Your task to perform on an android device: Do I have any events this weekend? Image 0: 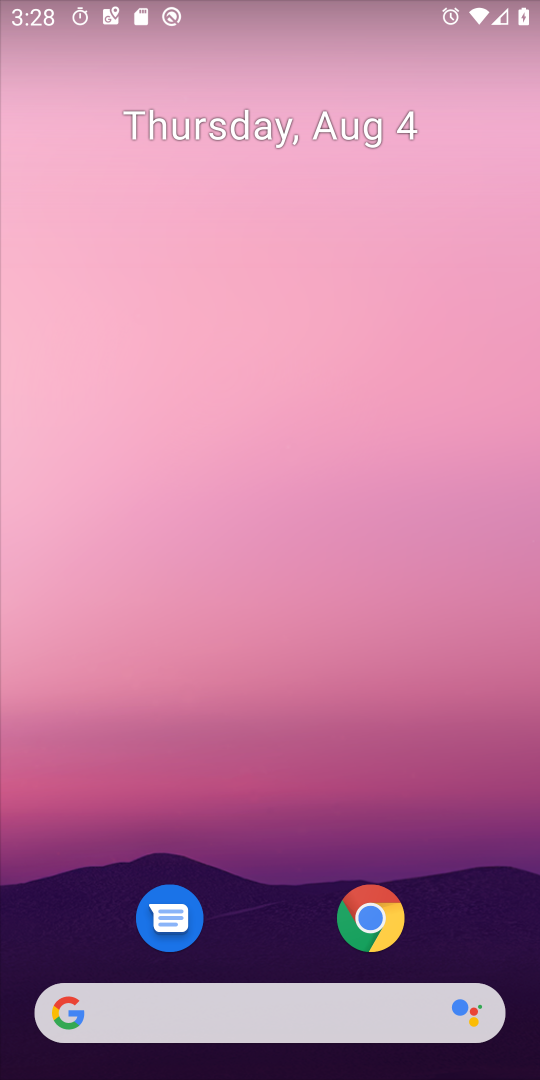
Step 0: drag from (242, 693) to (176, 140)
Your task to perform on an android device: Do I have any events this weekend? Image 1: 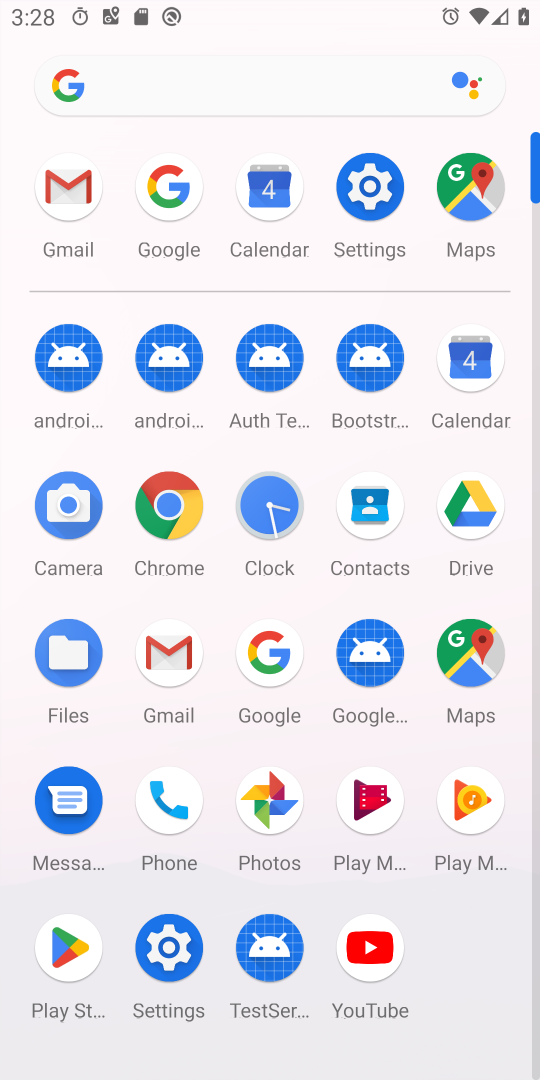
Step 1: click (472, 371)
Your task to perform on an android device: Do I have any events this weekend? Image 2: 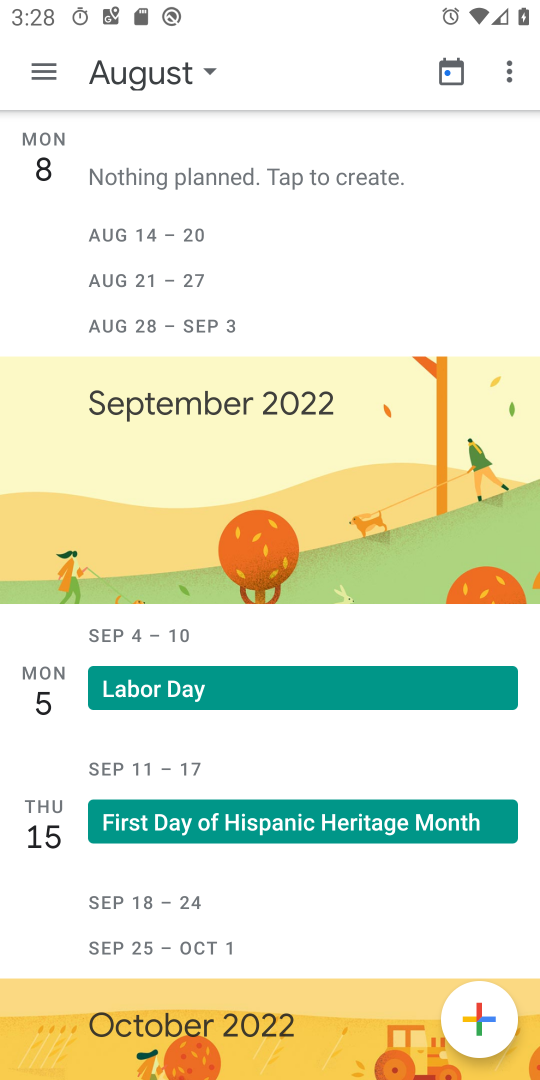
Step 2: click (193, 67)
Your task to perform on an android device: Do I have any events this weekend? Image 3: 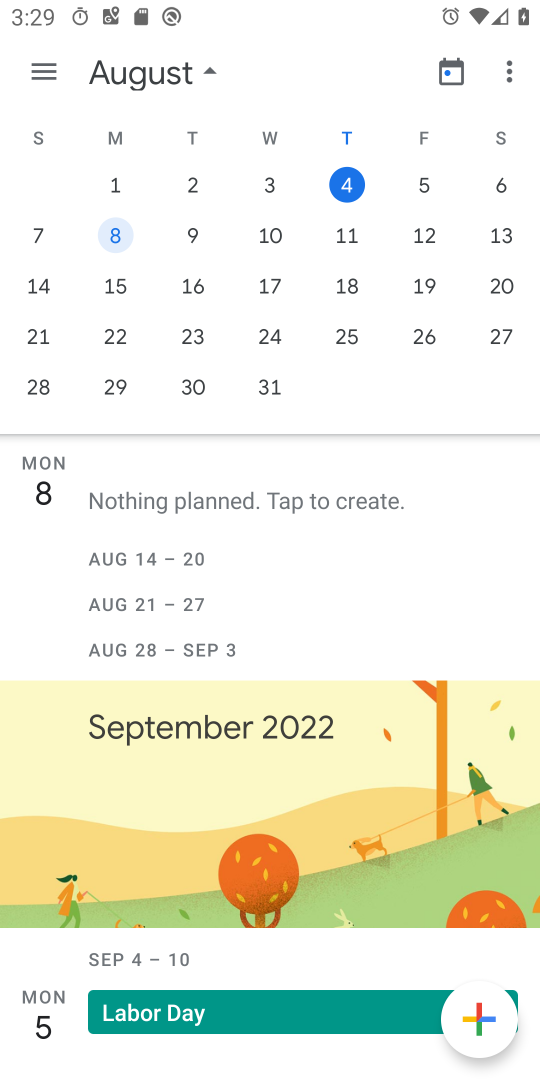
Step 3: click (499, 189)
Your task to perform on an android device: Do I have any events this weekend? Image 4: 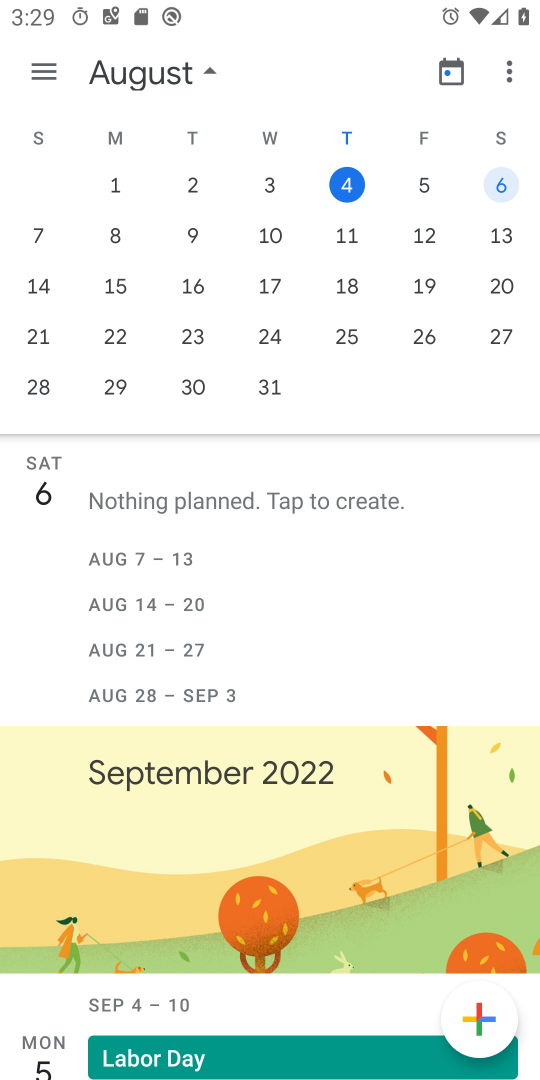
Step 4: task complete